Your task to perform on an android device: Go to battery settings Image 0: 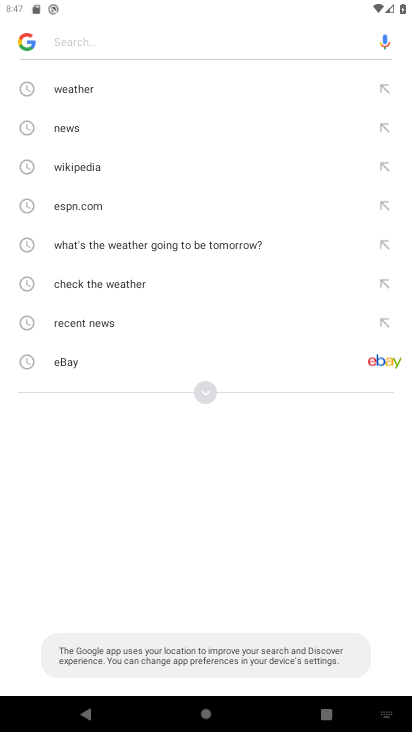
Step 0: press home button
Your task to perform on an android device: Go to battery settings Image 1: 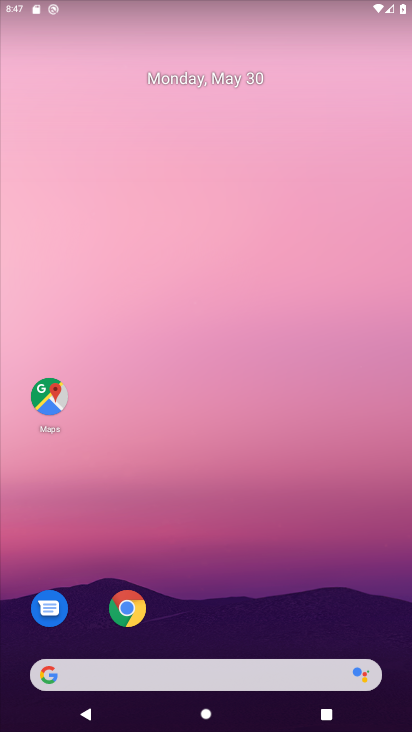
Step 1: drag from (231, 618) to (225, 18)
Your task to perform on an android device: Go to battery settings Image 2: 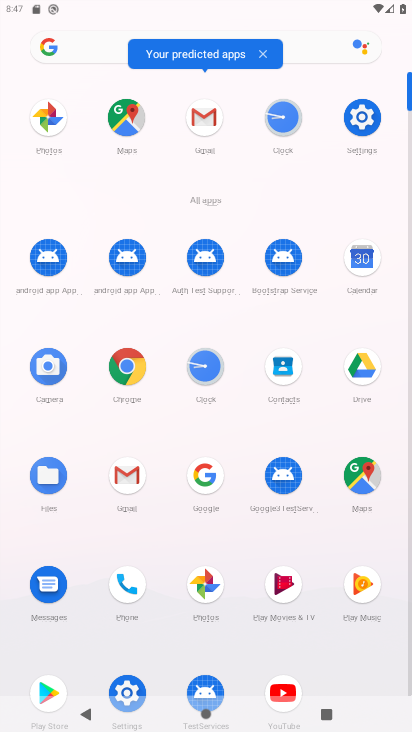
Step 2: click (367, 116)
Your task to perform on an android device: Go to battery settings Image 3: 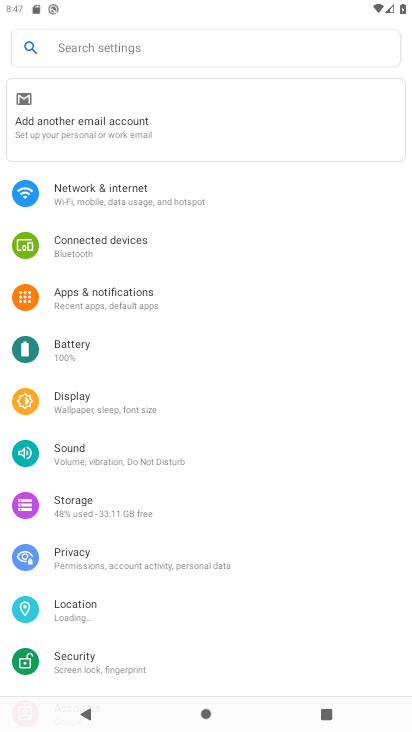
Step 3: click (120, 348)
Your task to perform on an android device: Go to battery settings Image 4: 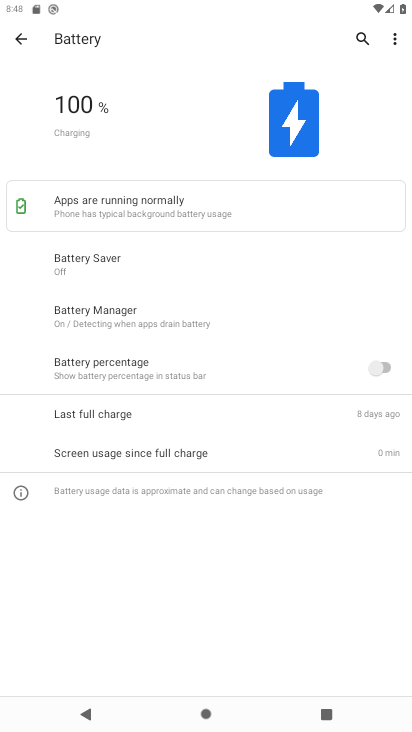
Step 4: task complete